Your task to perform on an android device: Open Google Chrome and click the shortcut for Amazon.com Image 0: 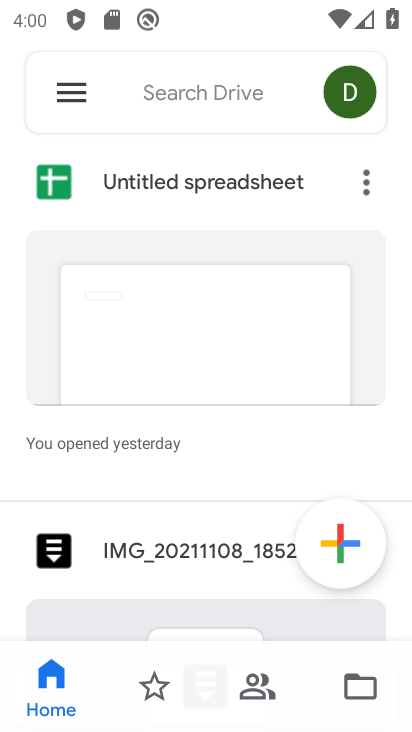
Step 0: press home button
Your task to perform on an android device: Open Google Chrome and click the shortcut for Amazon.com Image 1: 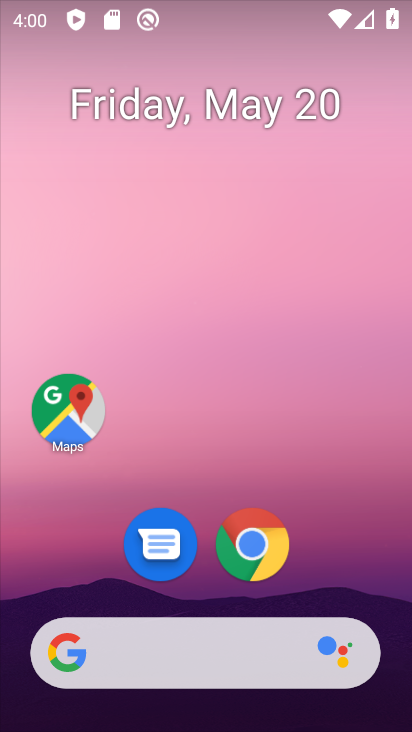
Step 1: click (254, 547)
Your task to perform on an android device: Open Google Chrome and click the shortcut for Amazon.com Image 2: 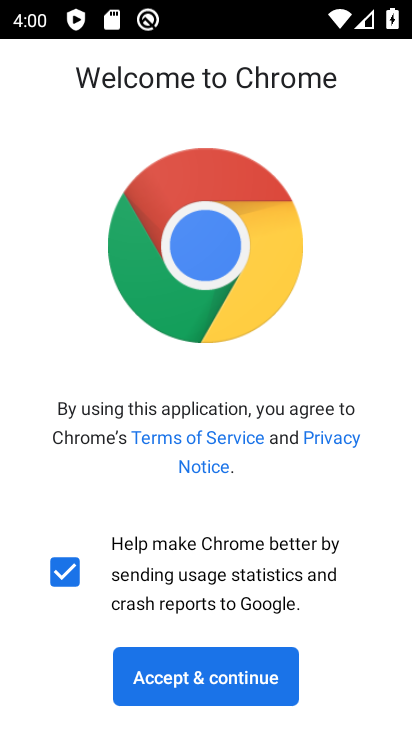
Step 2: click (205, 679)
Your task to perform on an android device: Open Google Chrome and click the shortcut for Amazon.com Image 3: 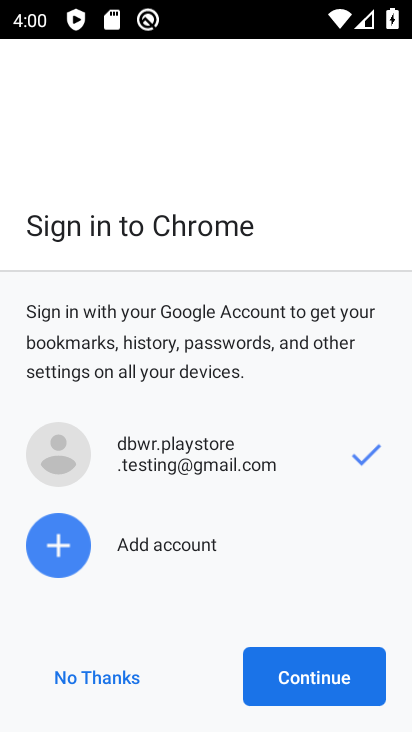
Step 3: click (118, 674)
Your task to perform on an android device: Open Google Chrome and click the shortcut for Amazon.com Image 4: 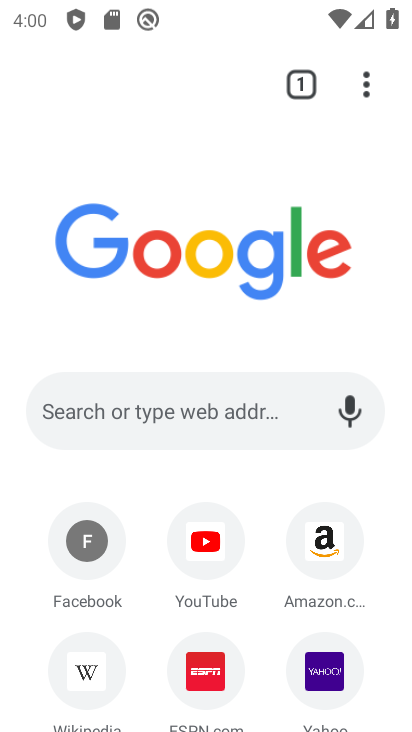
Step 4: click (325, 543)
Your task to perform on an android device: Open Google Chrome and click the shortcut for Amazon.com Image 5: 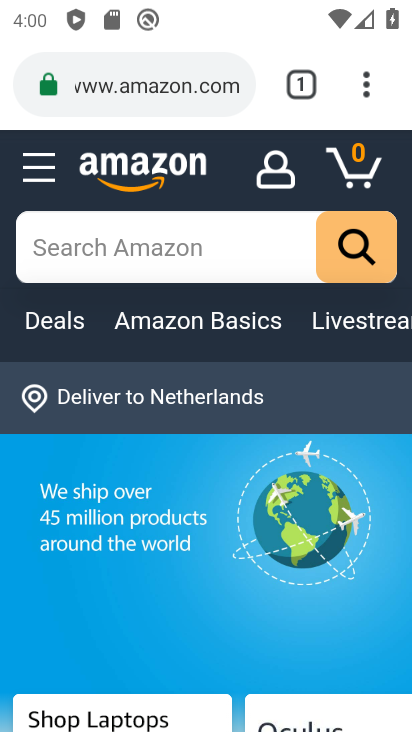
Step 5: task complete